Your task to perform on an android device: Search for "razer nari" on walmart.com, select the first entry, add it to the cart, then select checkout. Image 0: 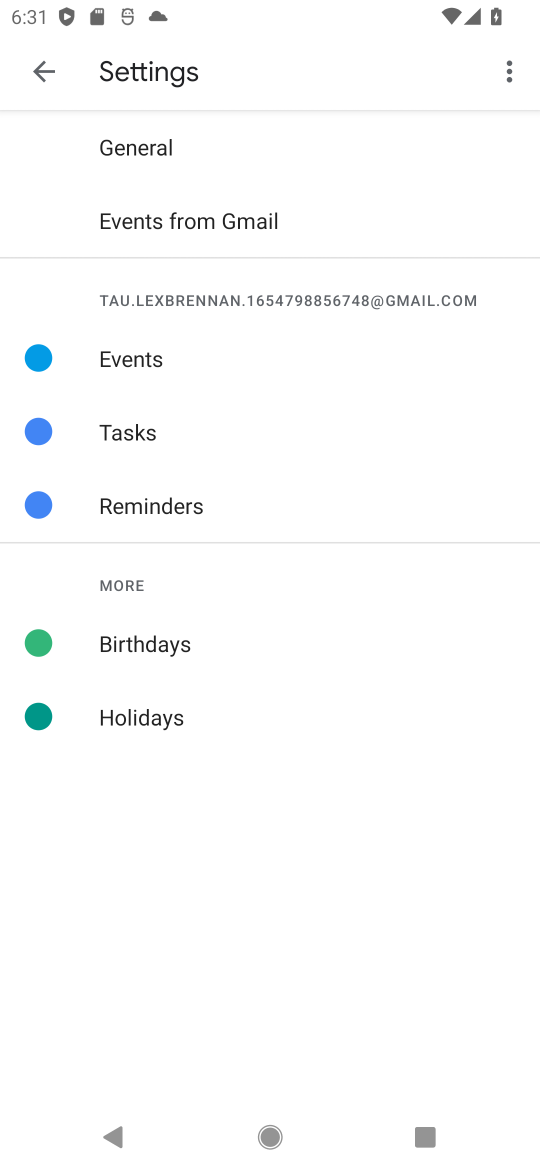
Step 0: press home button
Your task to perform on an android device: Search for "razer nari" on walmart.com, select the first entry, add it to the cart, then select checkout. Image 1: 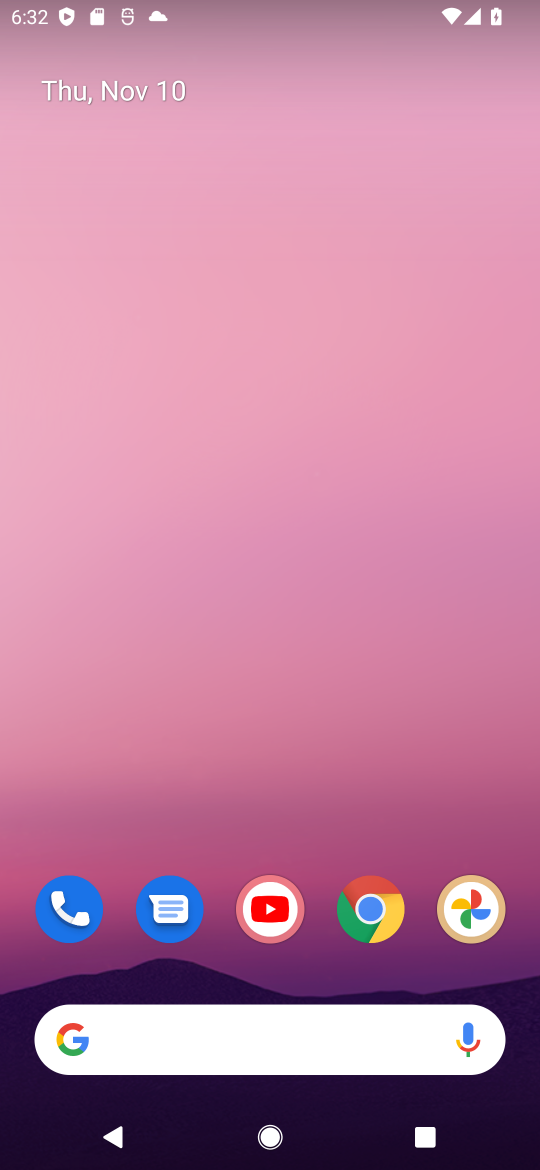
Step 1: drag from (240, 986) to (255, 112)
Your task to perform on an android device: Search for "razer nari" on walmart.com, select the first entry, add it to the cart, then select checkout. Image 2: 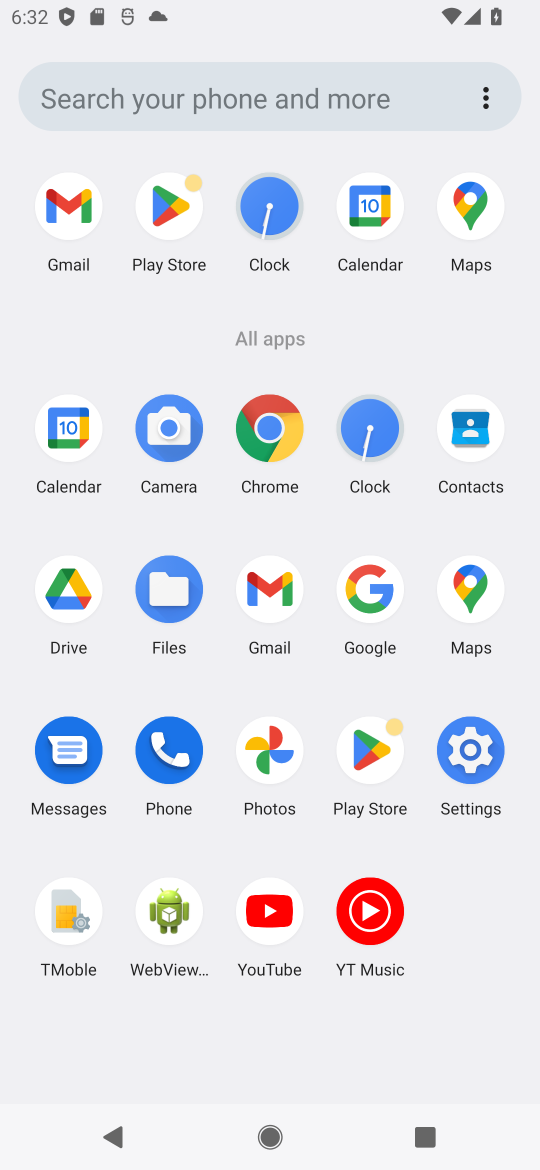
Step 2: click (360, 574)
Your task to perform on an android device: Search for "razer nari" on walmart.com, select the first entry, add it to the cart, then select checkout. Image 3: 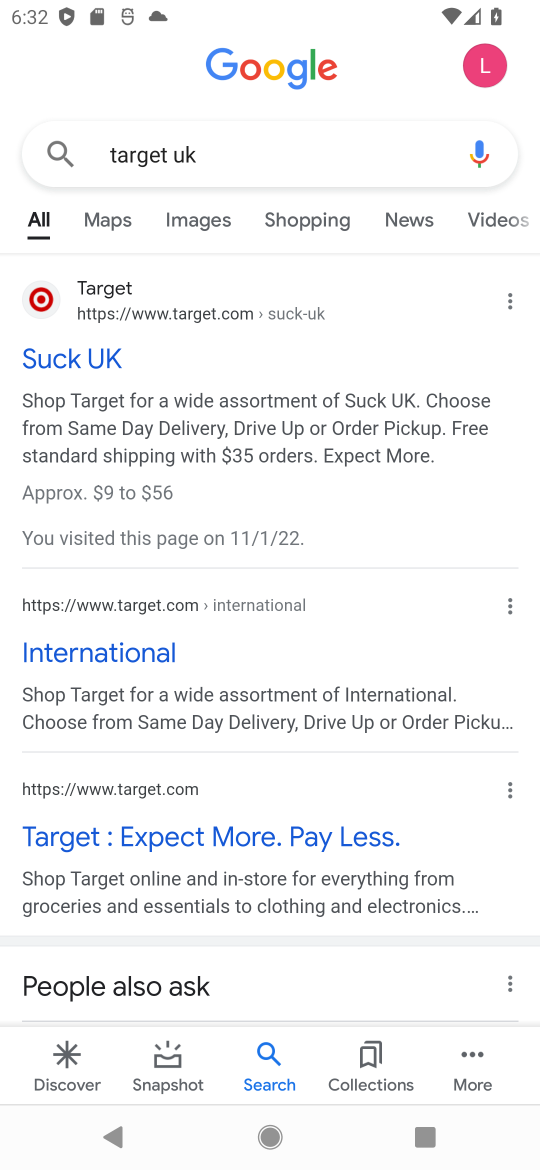
Step 3: click (283, 162)
Your task to perform on an android device: Search for "razer nari" on walmart.com, select the first entry, add it to the cart, then select checkout. Image 4: 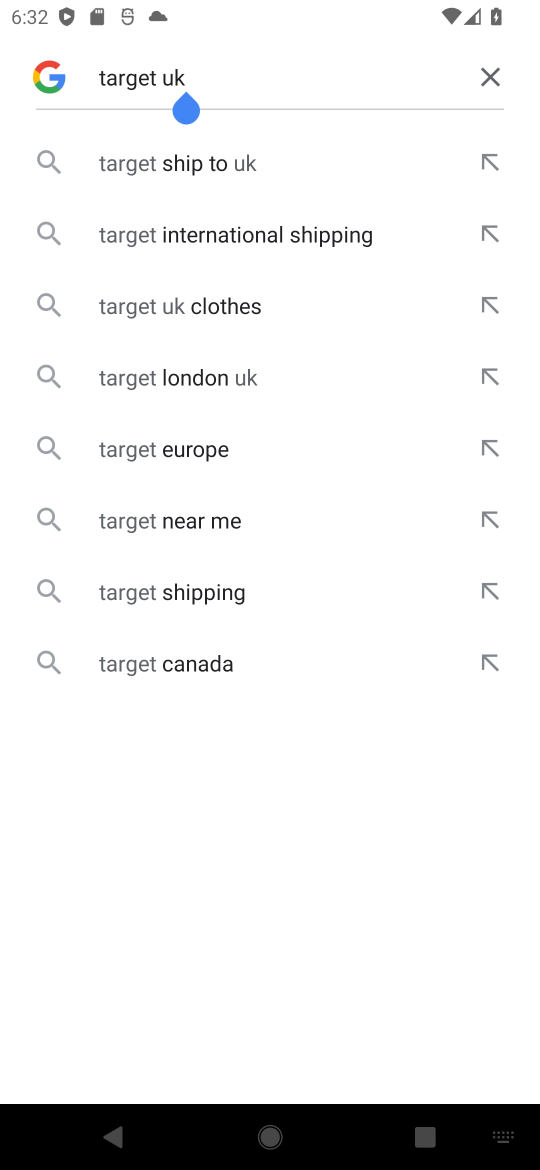
Step 4: click (488, 64)
Your task to perform on an android device: Search for "razer nari" on walmart.com, select the first entry, add it to the cart, then select checkout. Image 5: 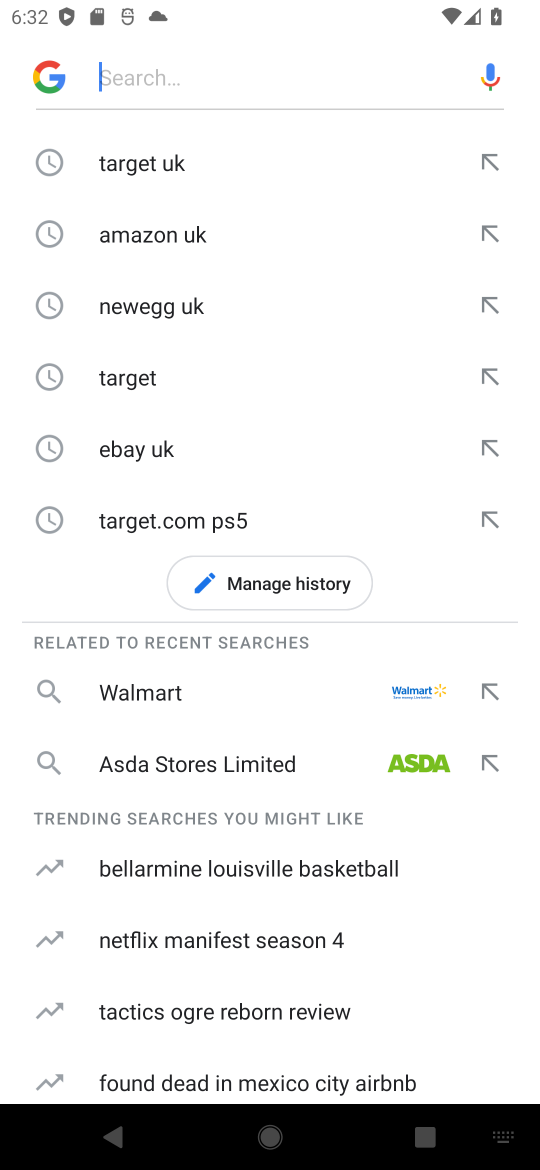
Step 5: click (203, 67)
Your task to perform on an android device: Search for "razer nari" on walmart.com, select the first entry, add it to the cart, then select checkout. Image 6: 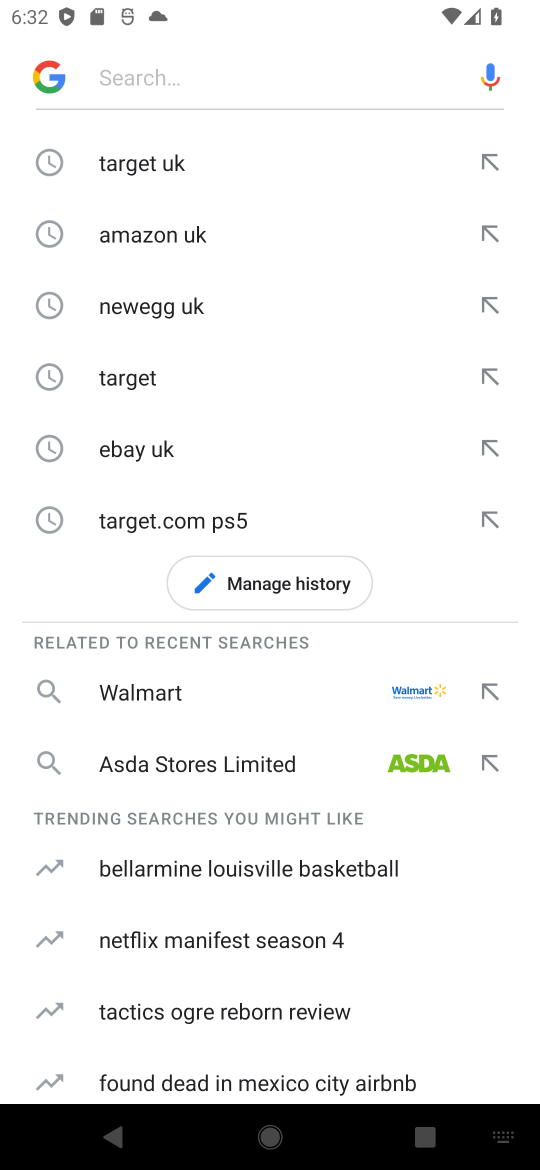
Step 6: type "walmart "
Your task to perform on an android device: Search for "razer nari" on walmart.com, select the first entry, add it to the cart, then select checkout. Image 7: 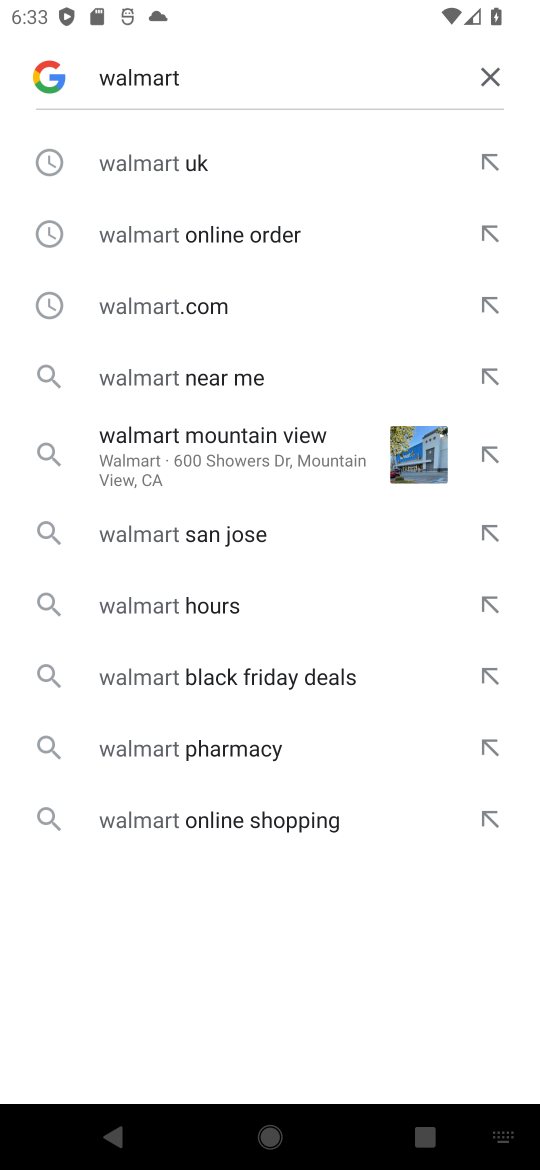
Step 7: click (174, 183)
Your task to perform on an android device: Search for "razer nari" on walmart.com, select the first entry, add it to the cart, then select checkout. Image 8: 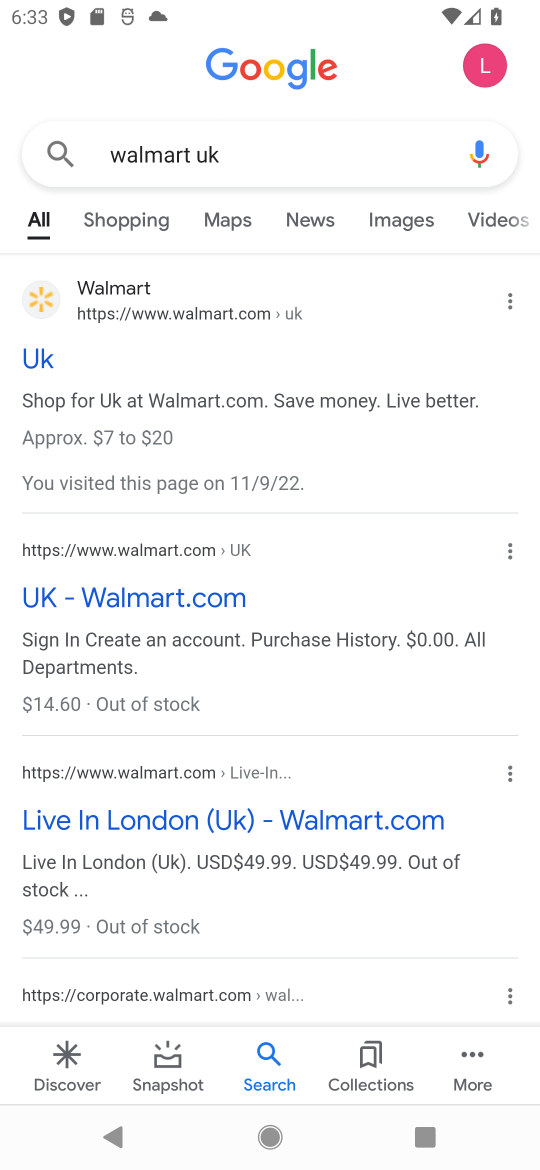
Step 8: click (44, 300)
Your task to perform on an android device: Search for "razer nari" on walmart.com, select the first entry, add it to the cart, then select checkout. Image 9: 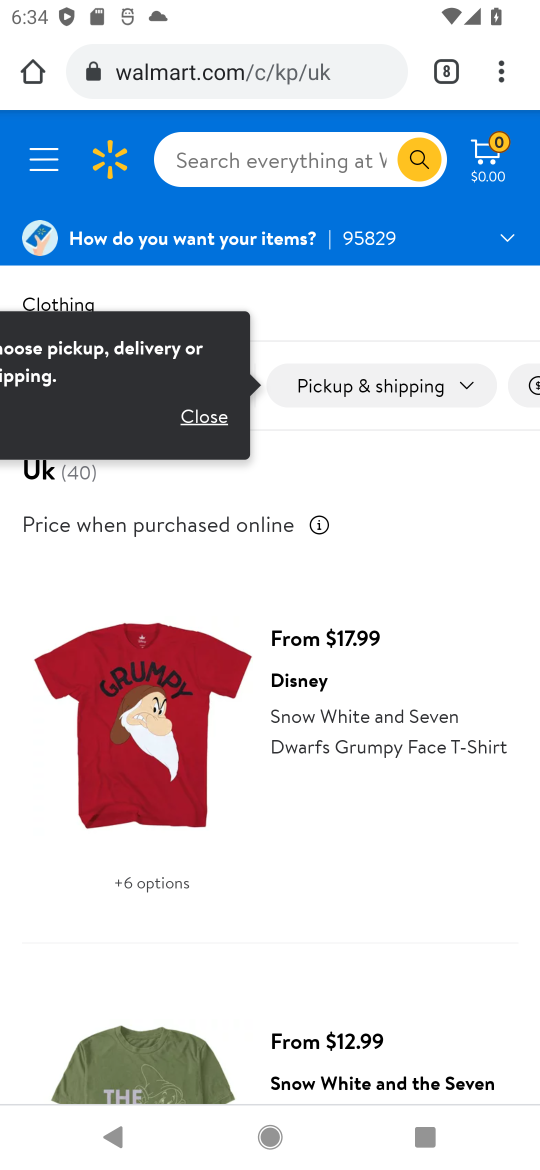
Step 9: click (249, 162)
Your task to perform on an android device: Search for "razer nari" on walmart.com, select the first entry, add it to the cart, then select checkout. Image 10: 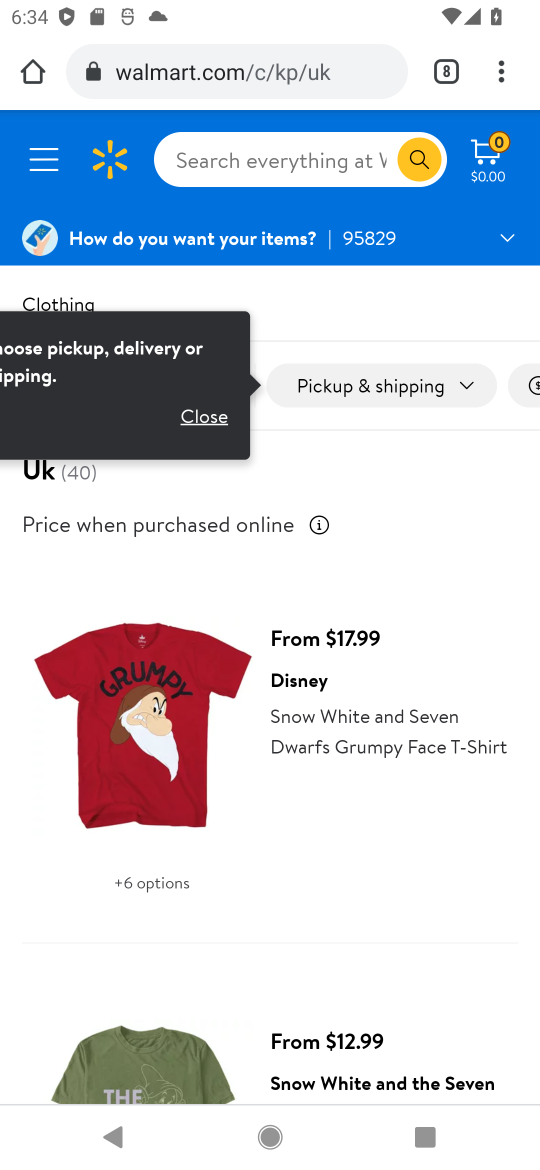
Step 10: click (263, 142)
Your task to perform on an android device: Search for "razer nari" on walmart.com, select the first entry, add it to the cart, then select checkout. Image 11: 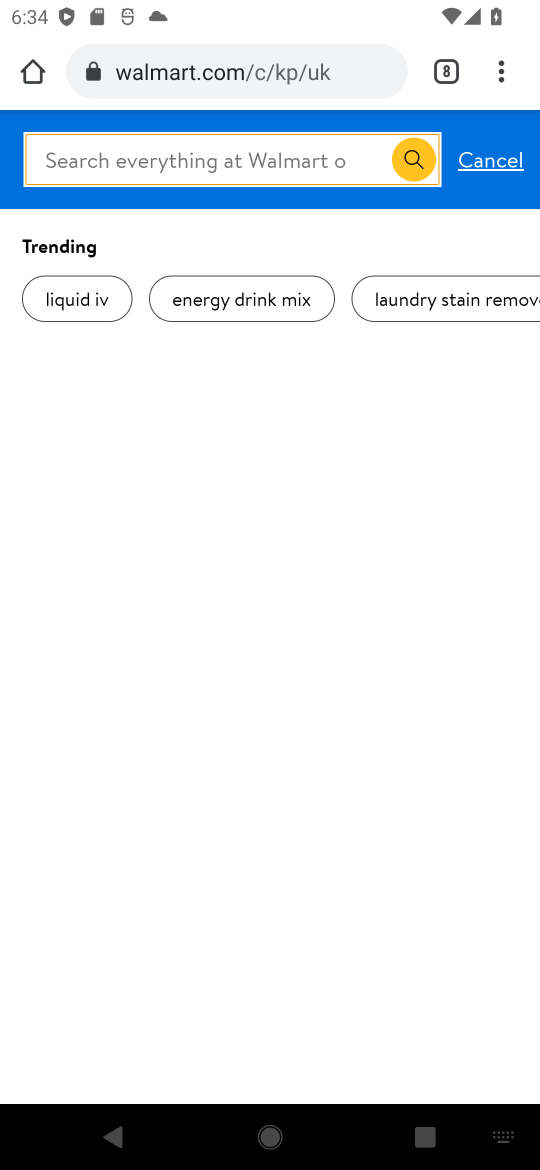
Step 11: type "razer nari "
Your task to perform on an android device: Search for "razer nari" on walmart.com, select the first entry, add it to the cart, then select checkout. Image 12: 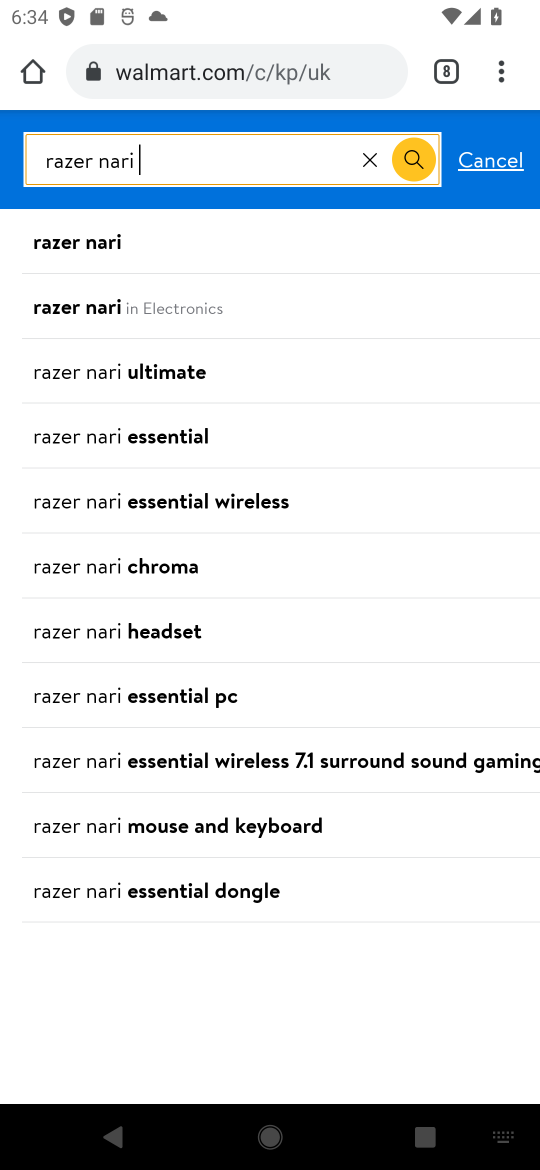
Step 12: click (91, 235)
Your task to perform on an android device: Search for "razer nari" on walmart.com, select the first entry, add it to the cart, then select checkout. Image 13: 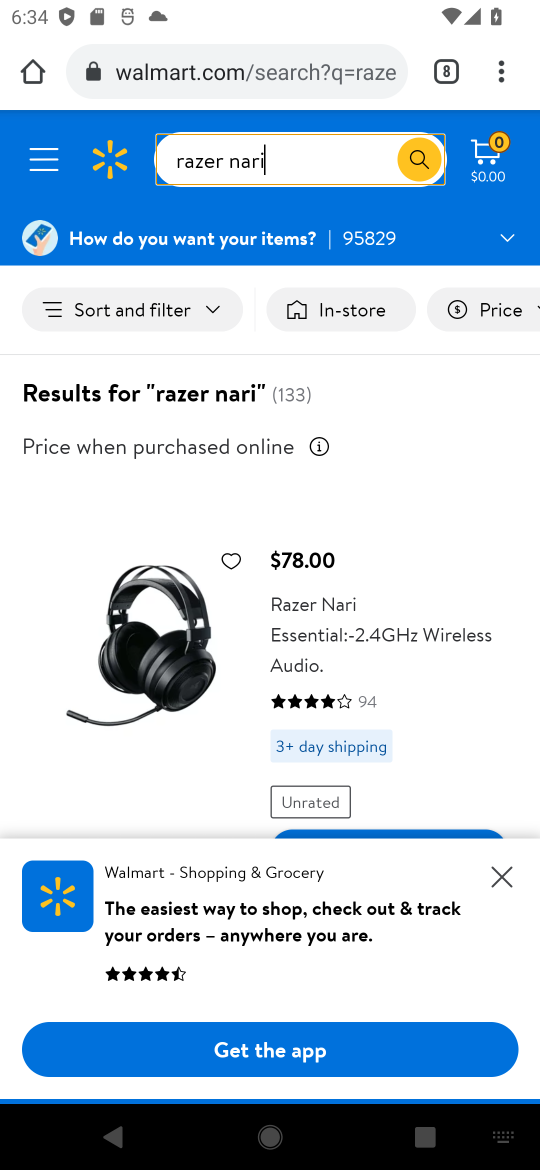
Step 13: click (517, 876)
Your task to perform on an android device: Search for "razer nari" on walmart.com, select the first entry, add it to the cart, then select checkout. Image 14: 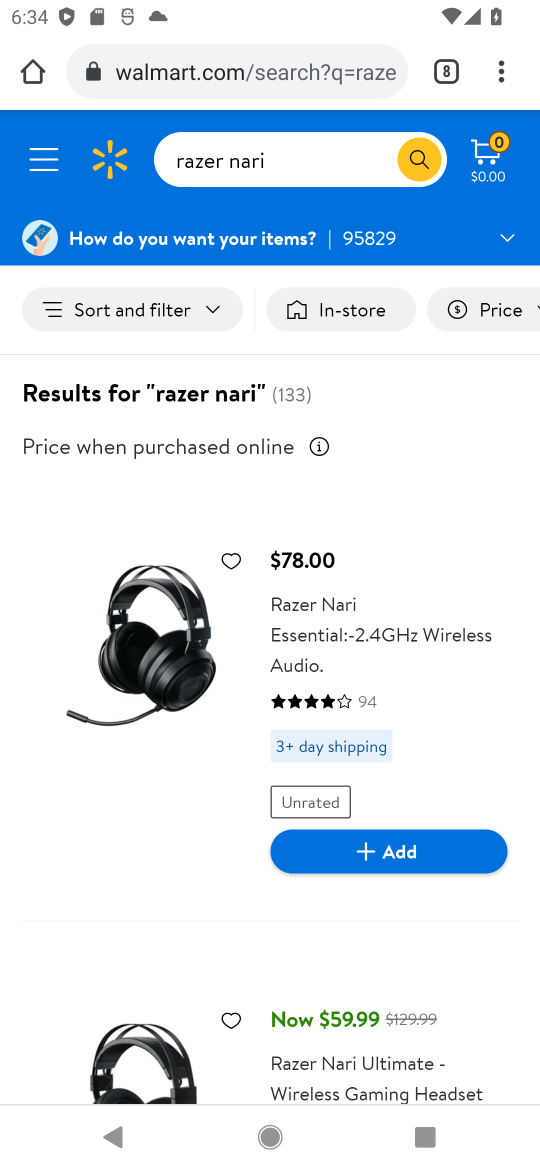
Step 14: click (370, 849)
Your task to perform on an android device: Search for "razer nari" on walmart.com, select the first entry, add it to the cart, then select checkout. Image 15: 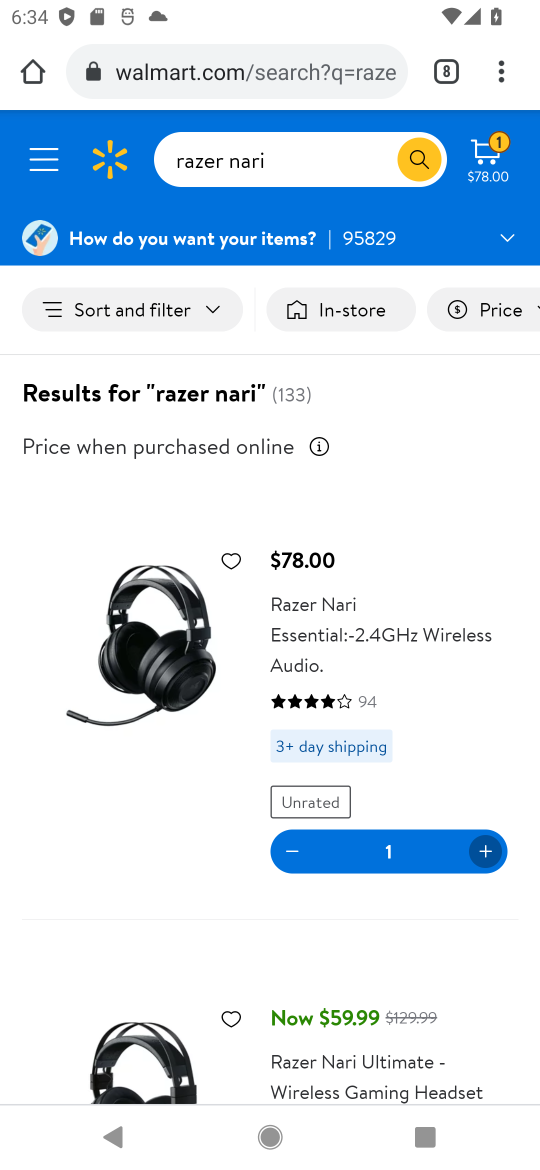
Step 15: task complete